Your task to perform on an android device: Search for the best books on Goodreads. Image 0: 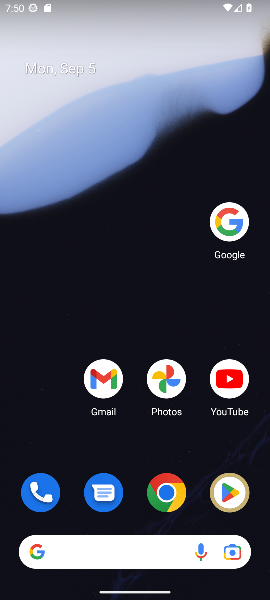
Step 0: click (225, 219)
Your task to perform on an android device: Search for the best books on Goodreads. Image 1: 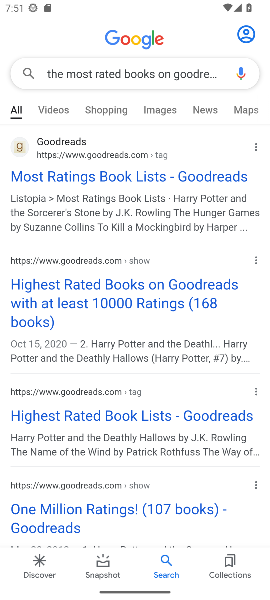
Step 1: click (140, 168)
Your task to perform on an android device: Search for the best books on Goodreads. Image 2: 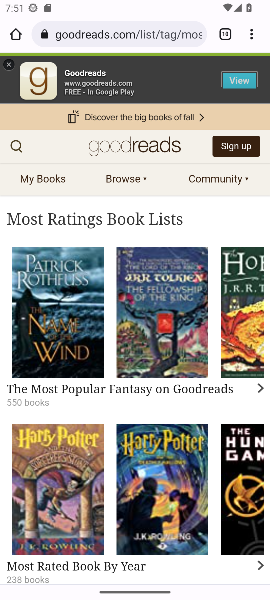
Step 2: task complete